Your task to perform on an android device: Add acer nitro to the cart on costco, then select checkout. Image 0: 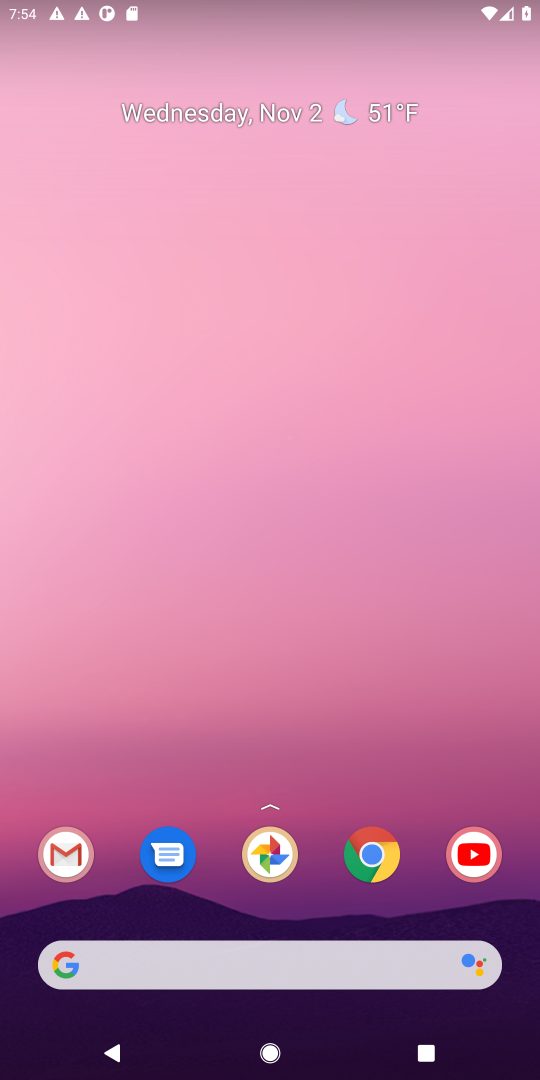
Step 0: click (381, 849)
Your task to perform on an android device: Add acer nitro to the cart on costco, then select checkout. Image 1: 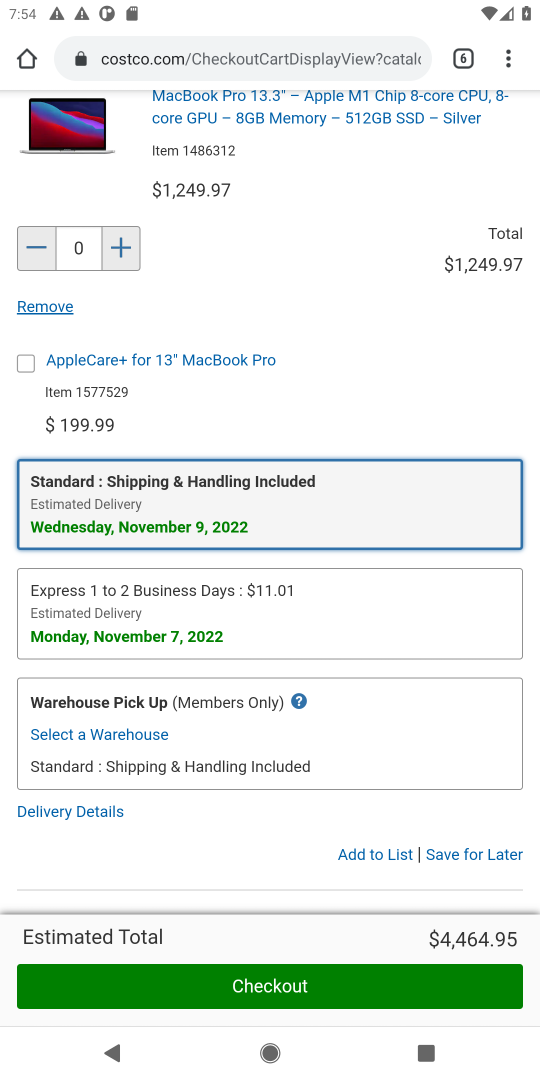
Step 1: click (460, 62)
Your task to perform on an android device: Add acer nitro to the cart on costco, then select checkout. Image 2: 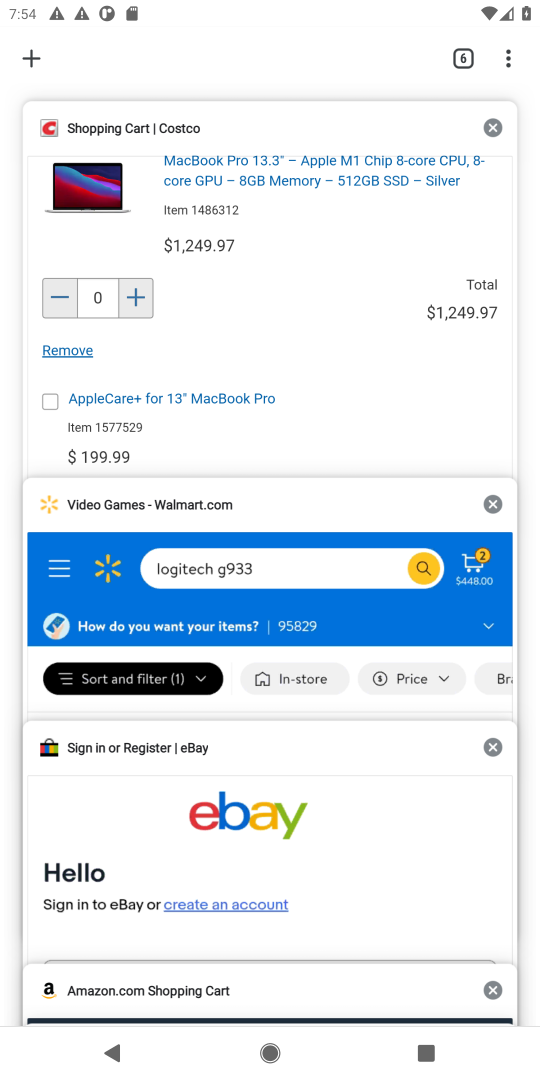
Step 2: click (285, 274)
Your task to perform on an android device: Add acer nitro to the cart on costco, then select checkout. Image 3: 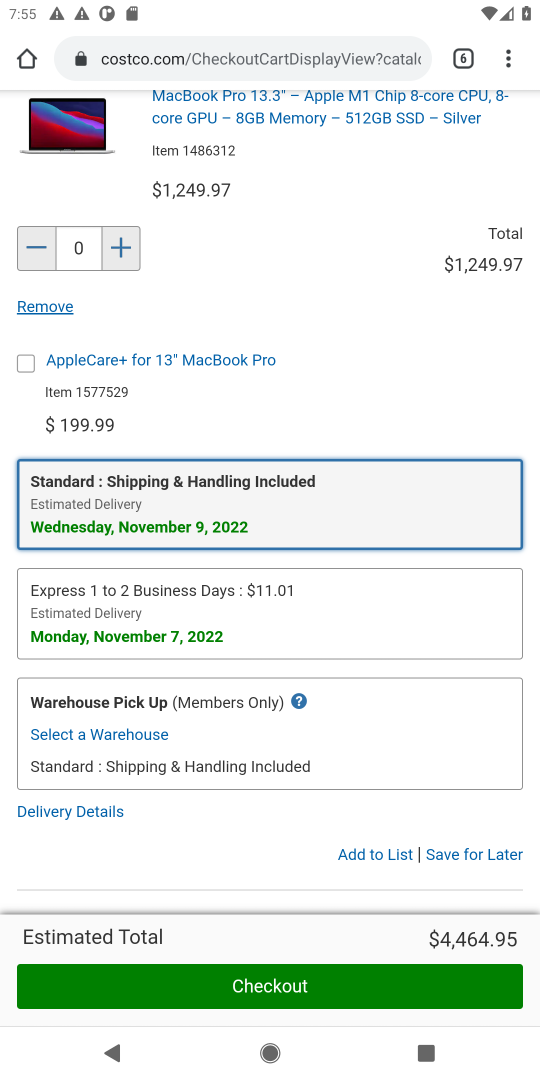
Step 3: drag from (364, 239) to (328, 889)
Your task to perform on an android device: Add acer nitro to the cart on costco, then select checkout. Image 4: 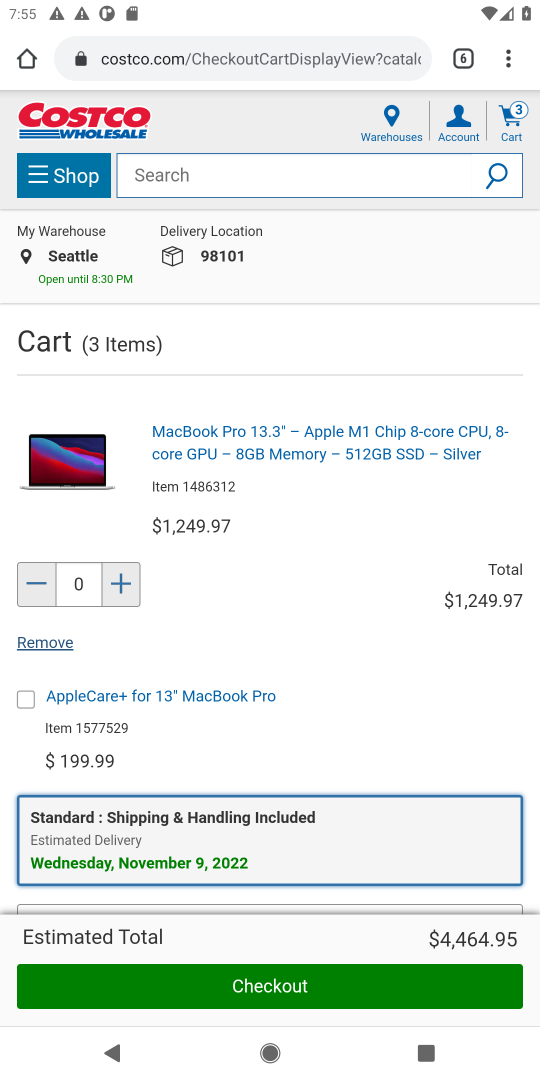
Step 4: click (169, 173)
Your task to perform on an android device: Add acer nitro to the cart on costco, then select checkout. Image 5: 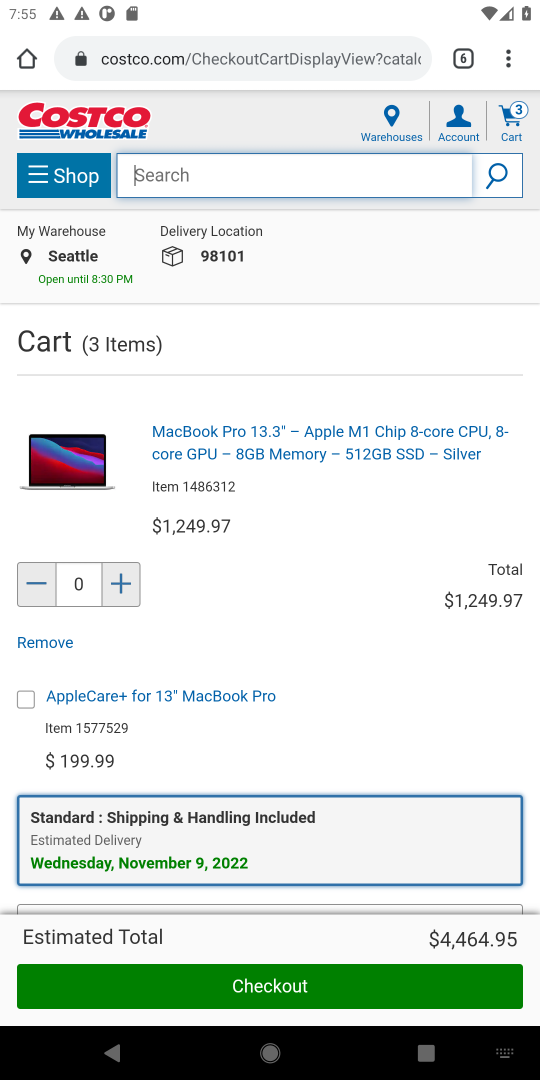
Step 5: type "acer nitro"
Your task to perform on an android device: Add acer nitro to the cart on costco, then select checkout. Image 6: 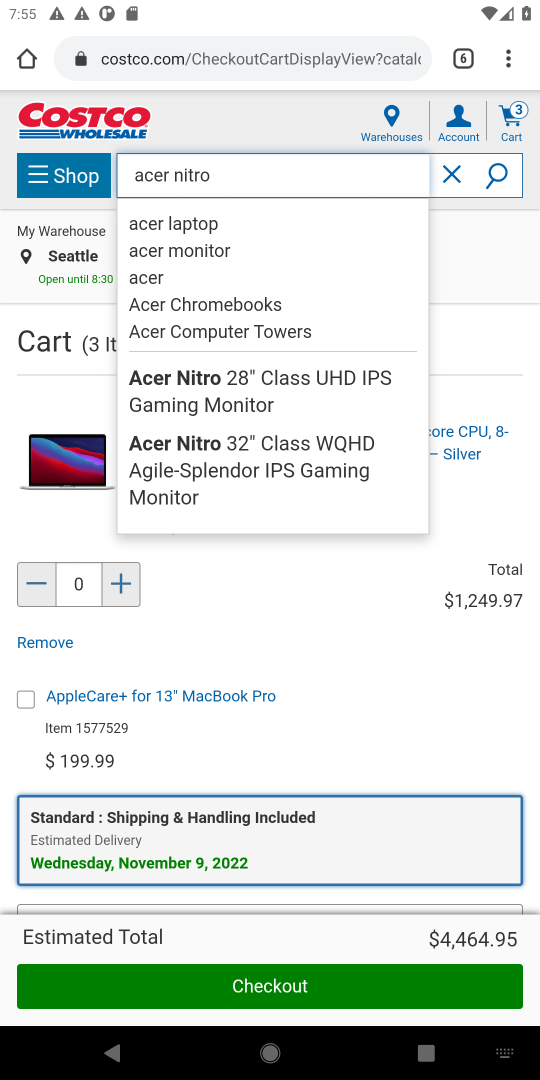
Step 6: click (189, 375)
Your task to perform on an android device: Add acer nitro to the cart on costco, then select checkout. Image 7: 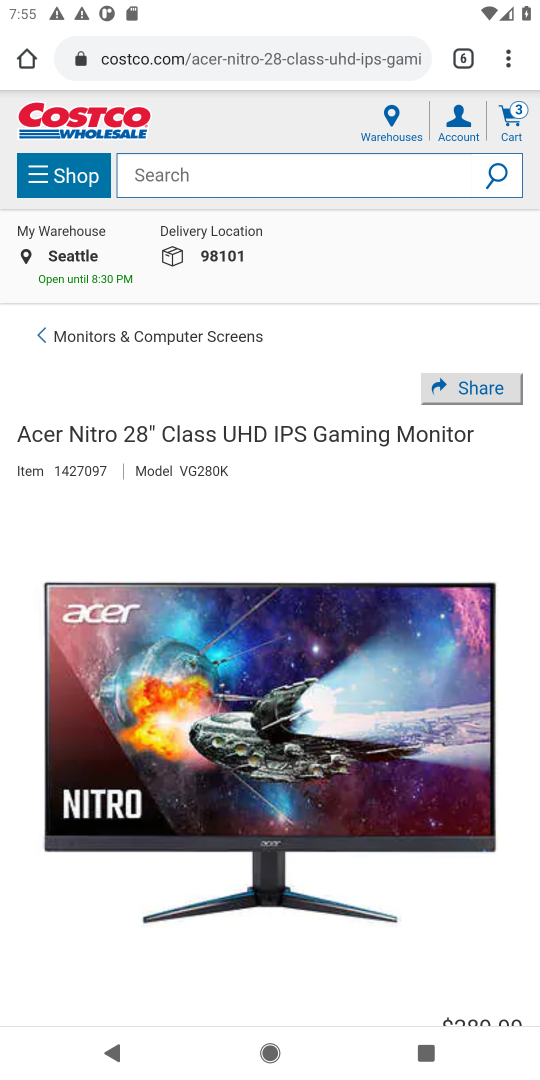
Step 7: drag from (368, 965) to (414, 338)
Your task to perform on an android device: Add acer nitro to the cart on costco, then select checkout. Image 8: 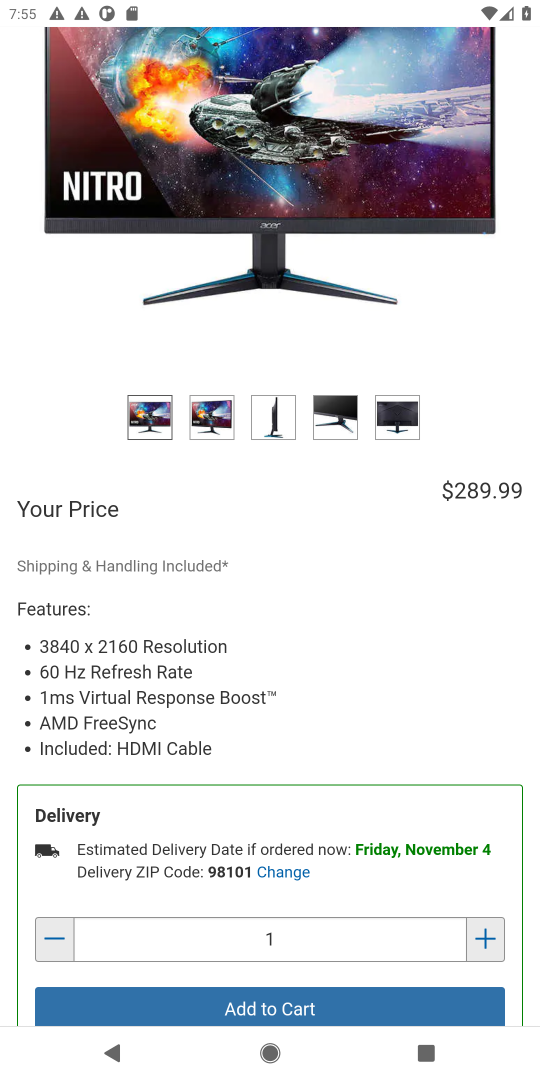
Step 8: click (302, 1006)
Your task to perform on an android device: Add acer nitro to the cart on costco, then select checkout. Image 9: 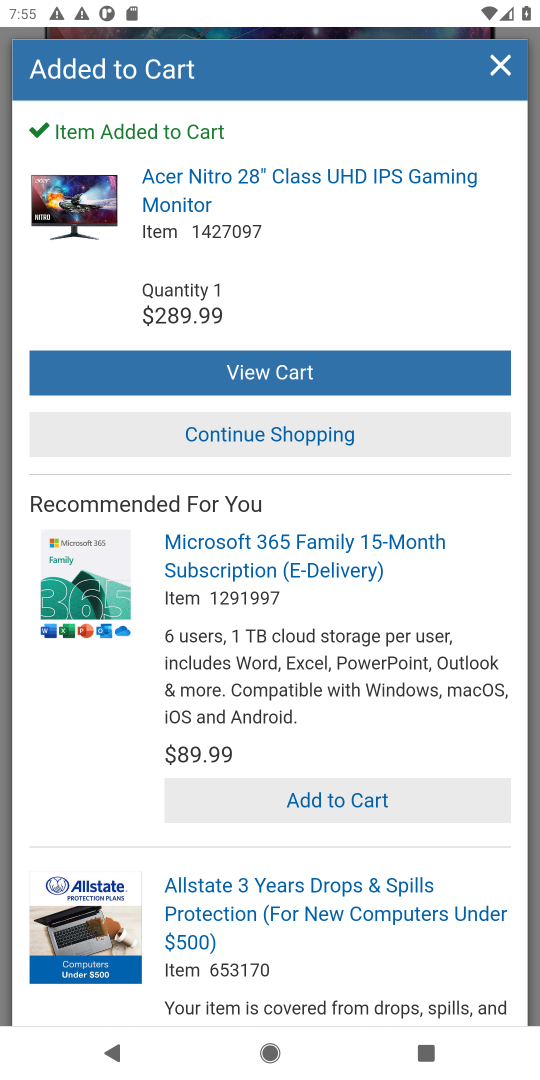
Step 9: task complete